Your task to perform on an android device: Go to location settings Image 0: 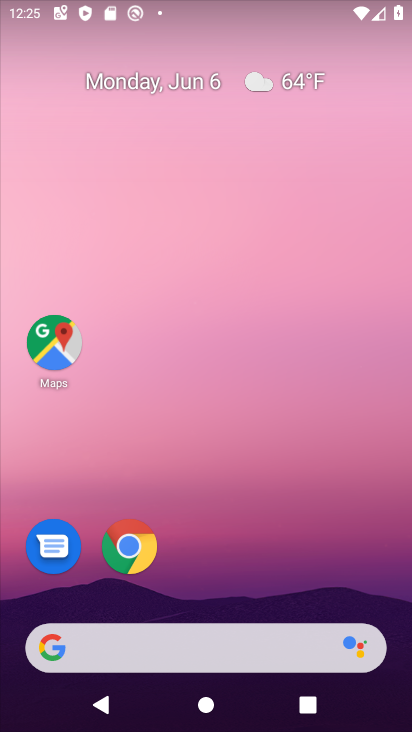
Step 0: drag from (276, 577) to (271, 181)
Your task to perform on an android device: Go to location settings Image 1: 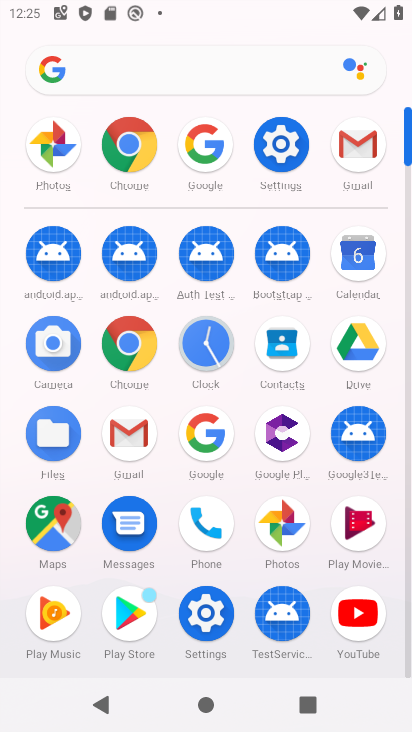
Step 1: click (276, 116)
Your task to perform on an android device: Go to location settings Image 2: 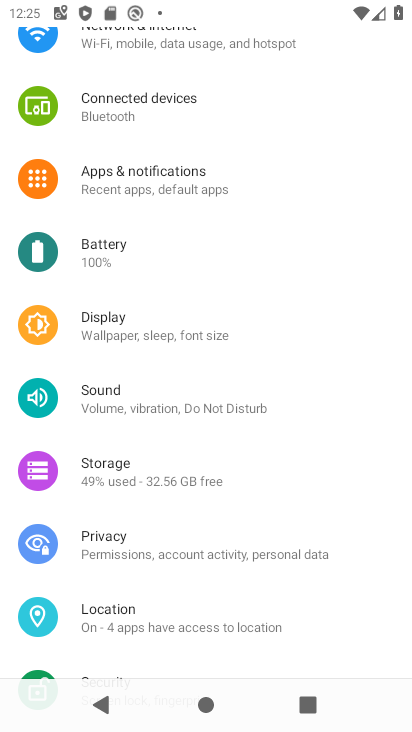
Step 2: click (164, 605)
Your task to perform on an android device: Go to location settings Image 3: 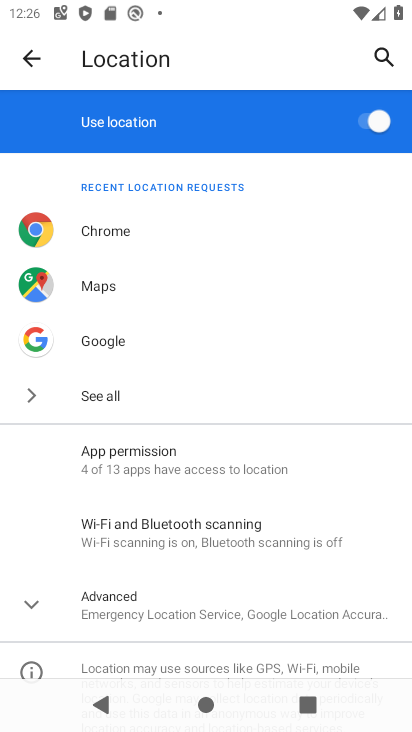
Step 3: task complete